Your task to perform on an android device: Show me some nice wallpapers for my phone Image 0: 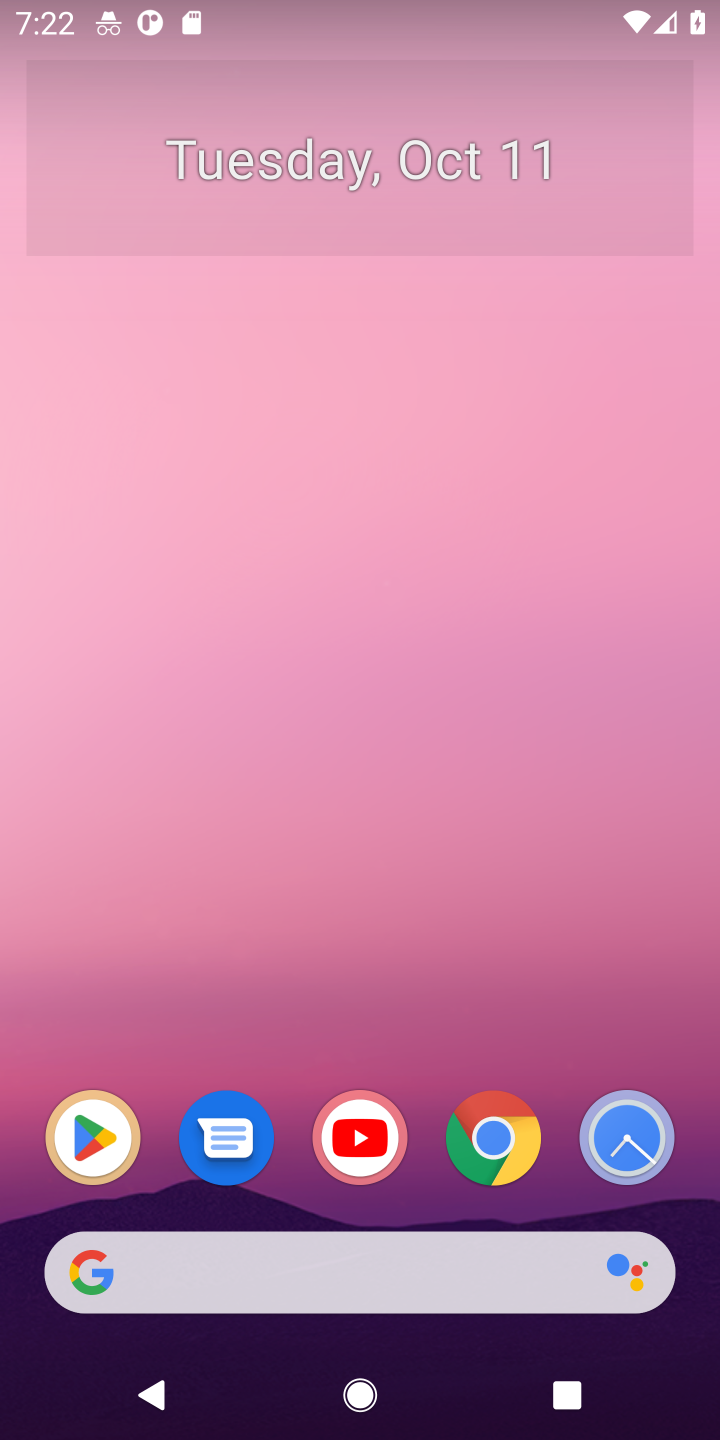
Step 0: drag from (337, 139) to (365, 348)
Your task to perform on an android device: Show me some nice wallpapers for my phone Image 1: 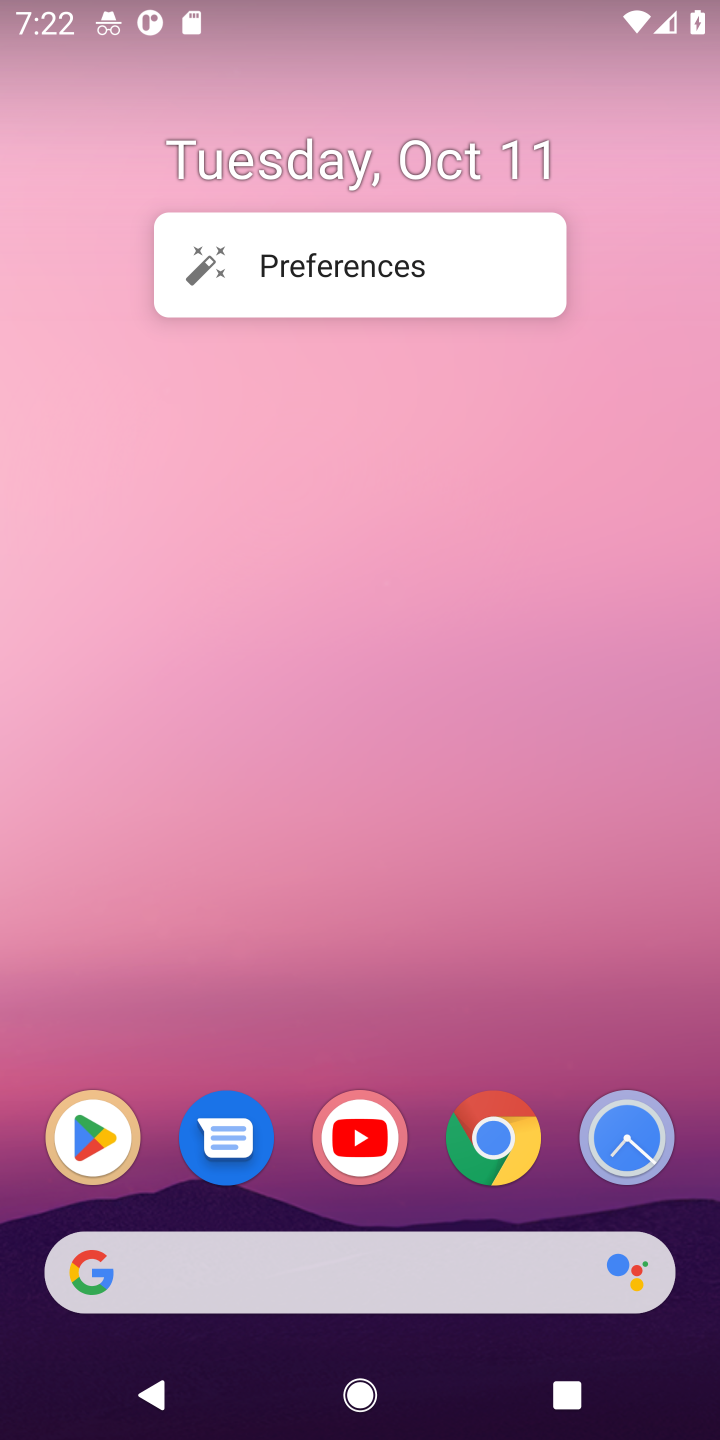
Step 1: drag from (286, 1175) to (304, 28)
Your task to perform on an android device: Show me some nice wallpapers for my phone Image 2: 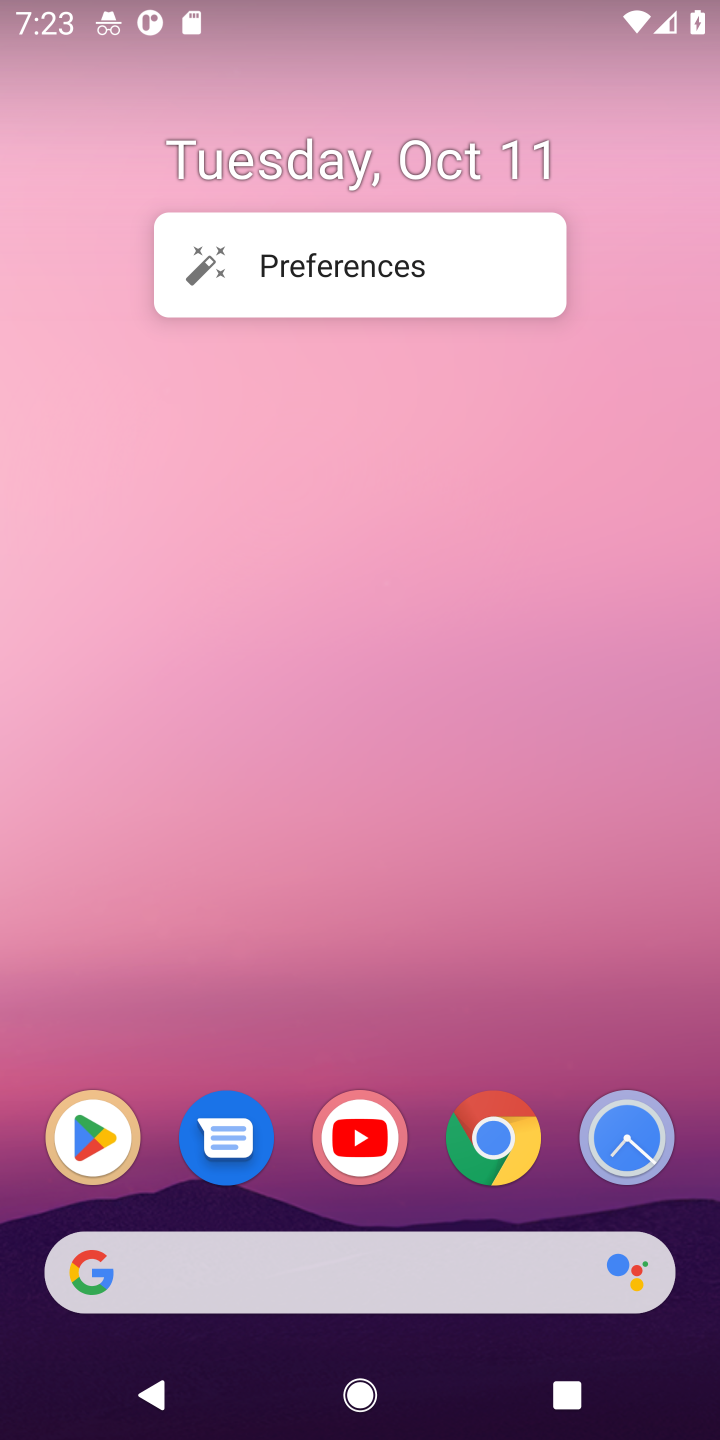
Step 2: drag from (309, 1112) to (309, 354)
Your task to perform on an android device: Show me some nice wallpapers for my phone Image 3: 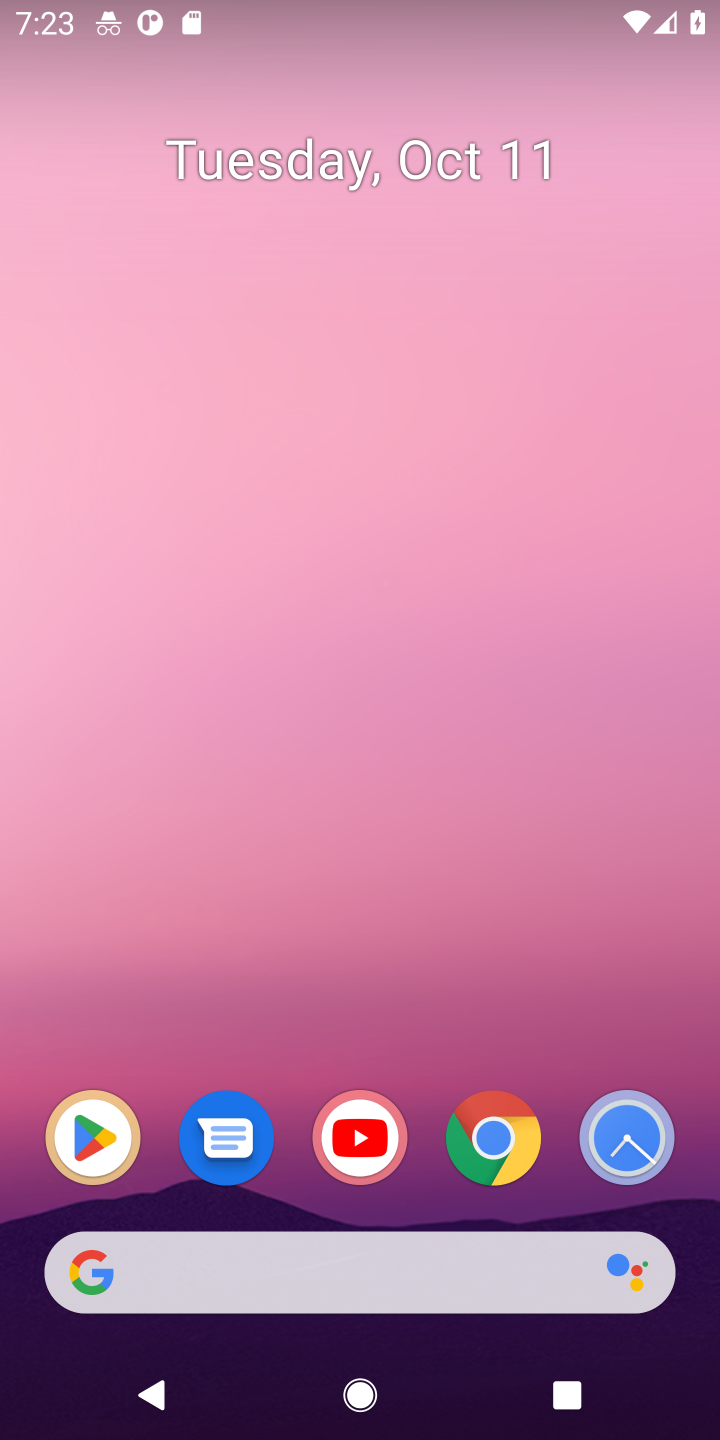
Step 3: drag from (408, 1189) to (409, 265)
Your task to perform on an android device: Show me some nice wallpapers for my phone Image 4: 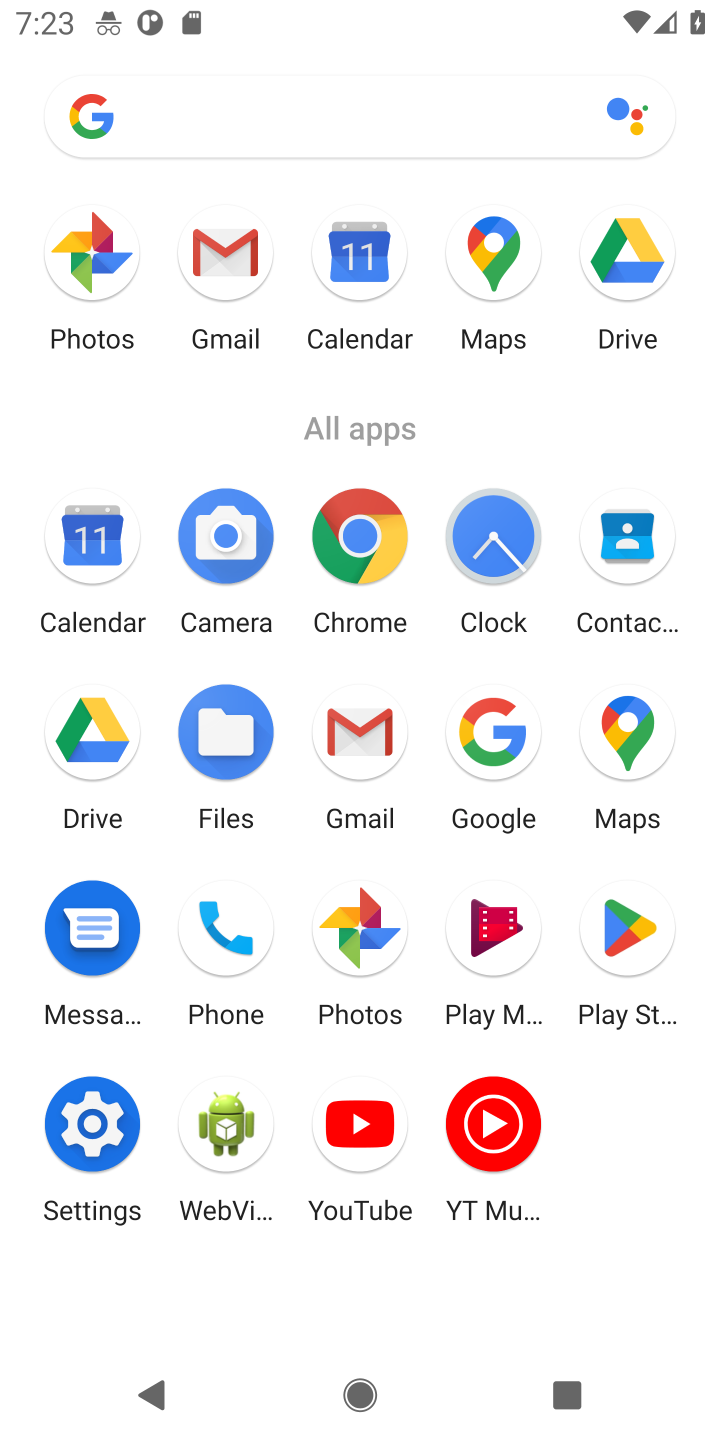
Step 4: drag from (534, 1141) to (392, 917)
Your task to perform on an android device: Show me some nice wallpapers for my phone Image 5: 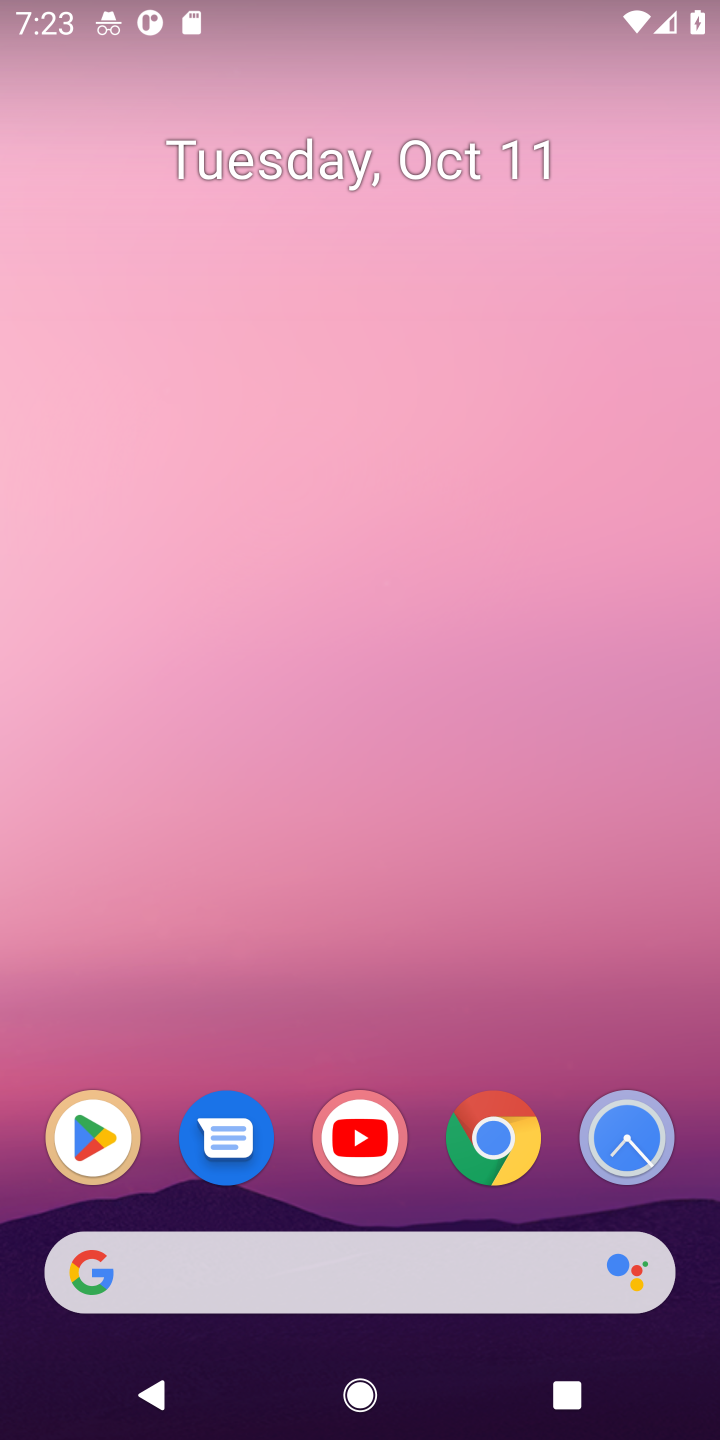
Step 5: click (472, 56)
Your task to perform on an android device: Show me some nice wallpapers for my phone Image 6: 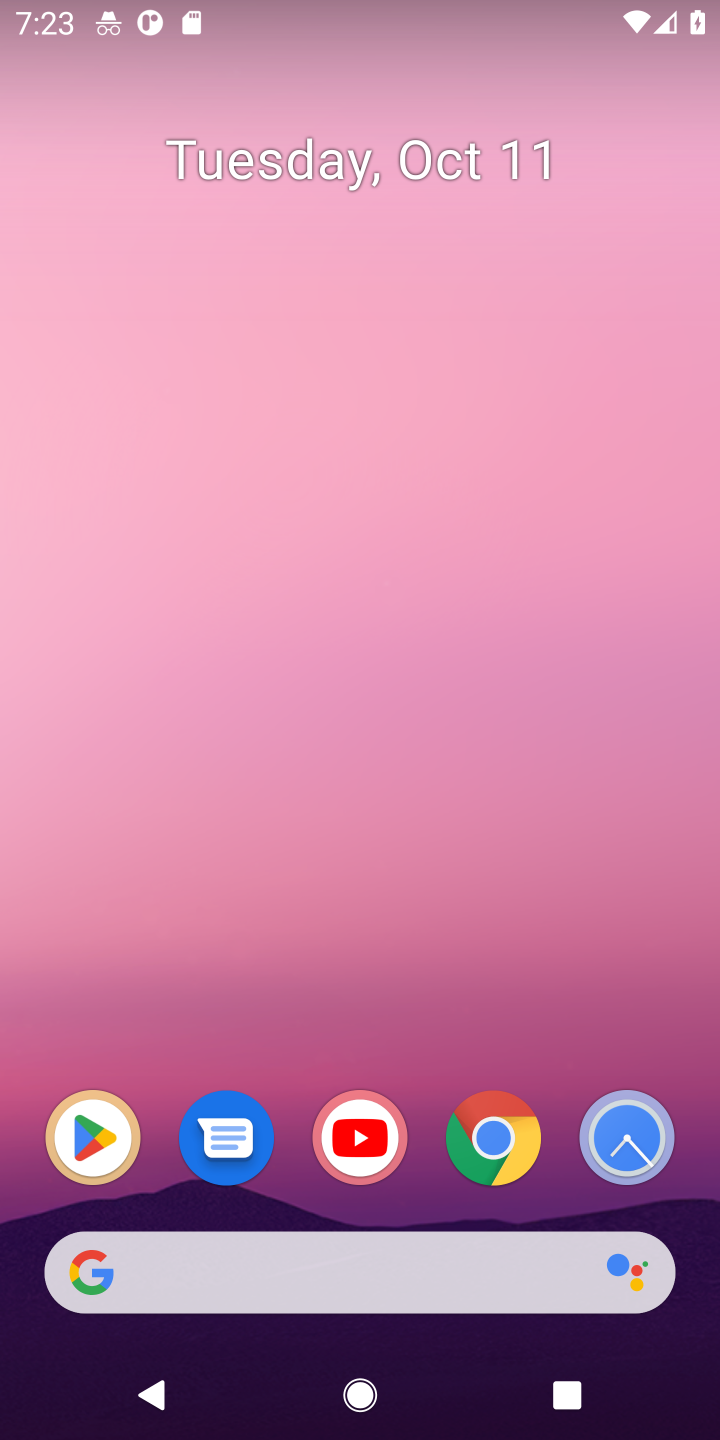
Step 6: drag from (439, 108) to (541, 9)
Your task to perform on an android device: Show me some nice wallpapers for my phone Image 7: 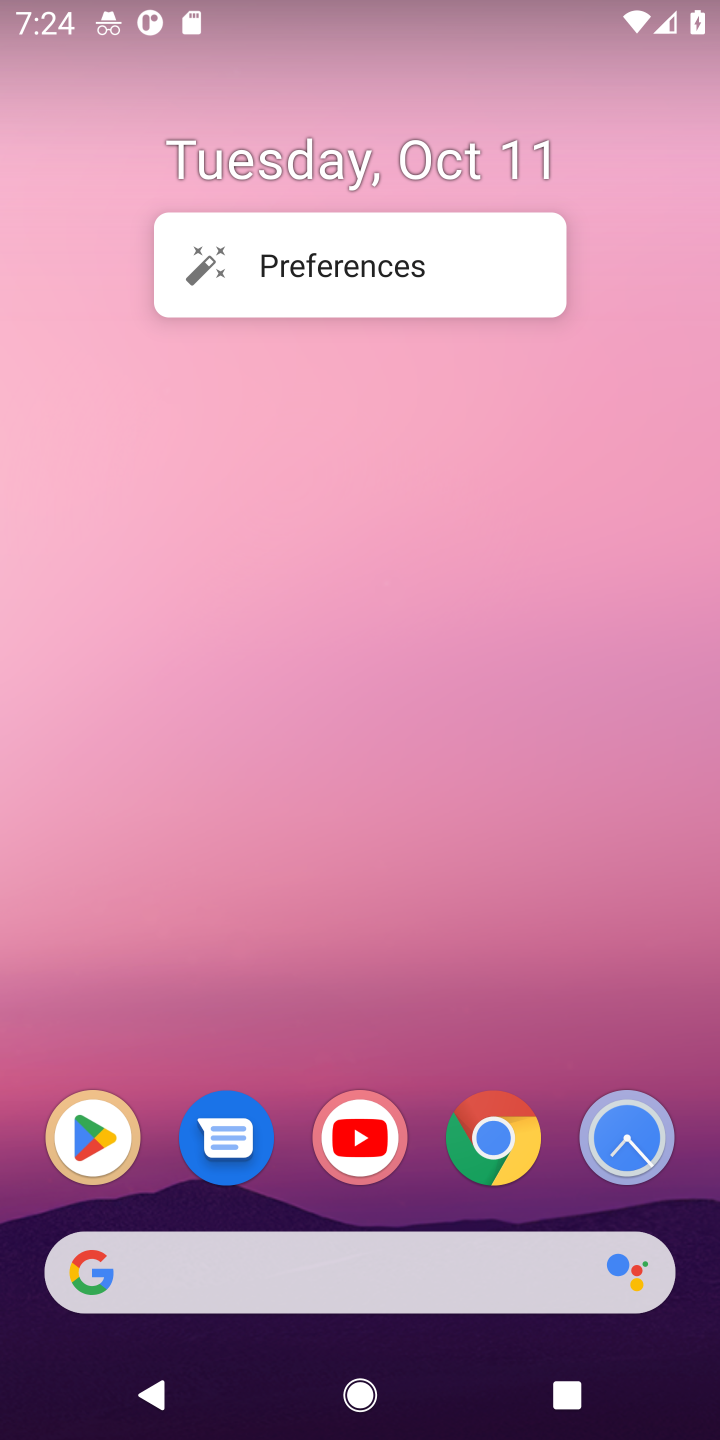
Step 7: drag from (413, 213) to (345, 146)
Your task to perform on an android device: Show me some nice wallpapers for my phone Image 8: 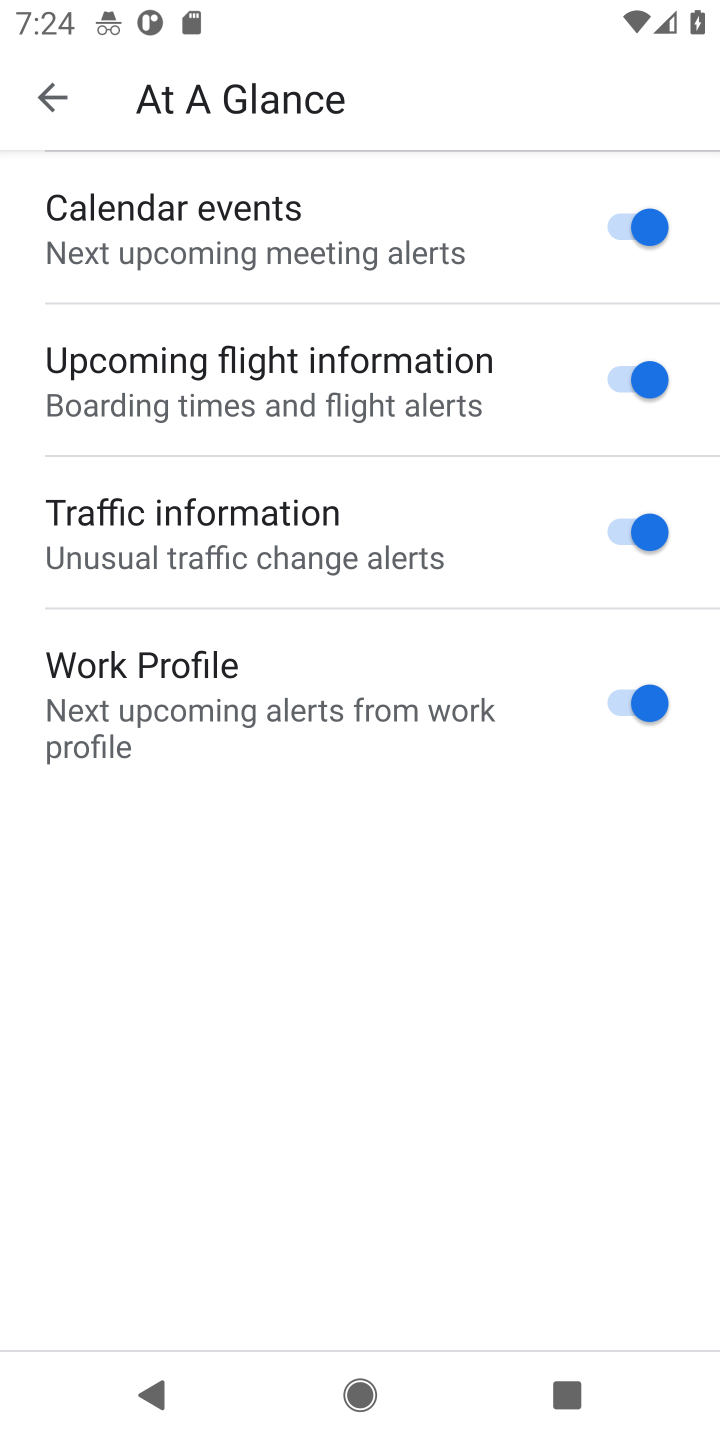
Step 8: press back button
Your task to perform on an android device: Show me some nice wallpapers for my phone Image 9: 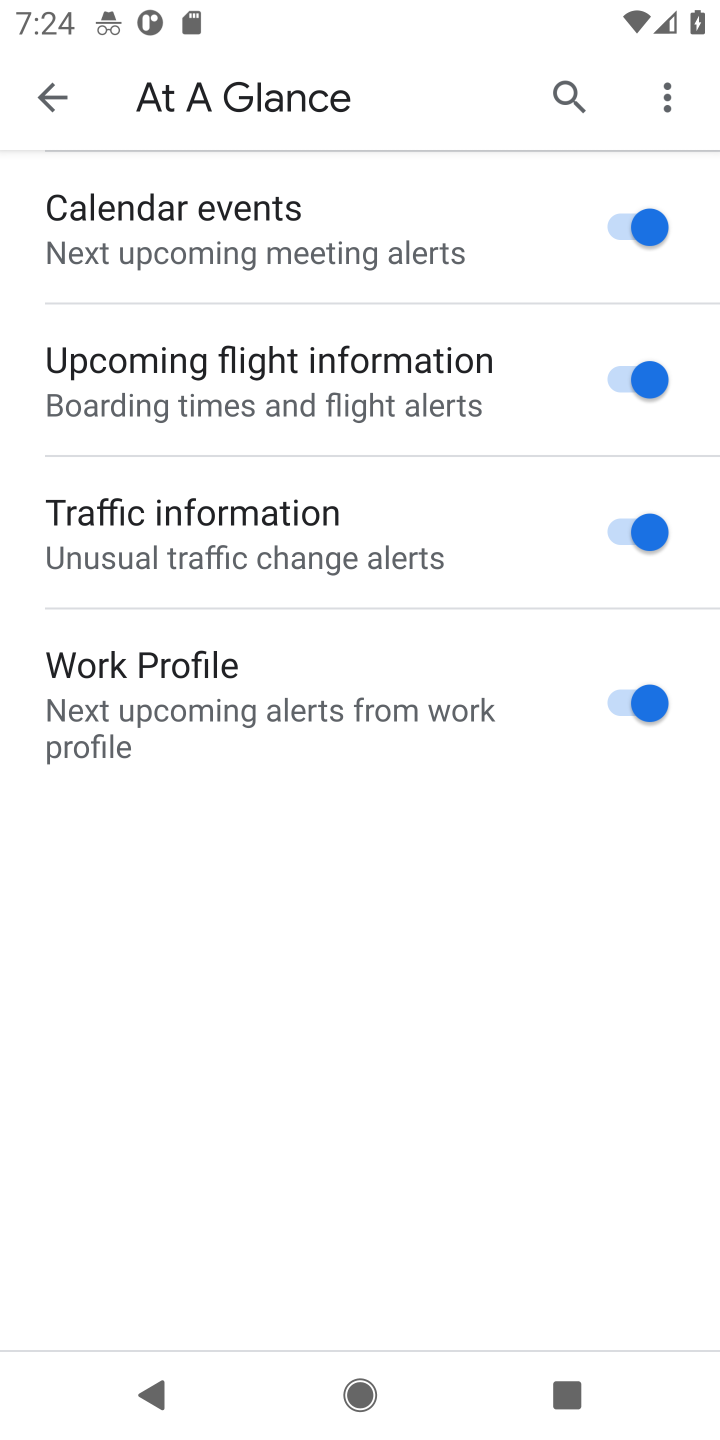
Step 9: press home button
Your task to perform on an android device: Show me some nice wallpapers for my phone Image 10: 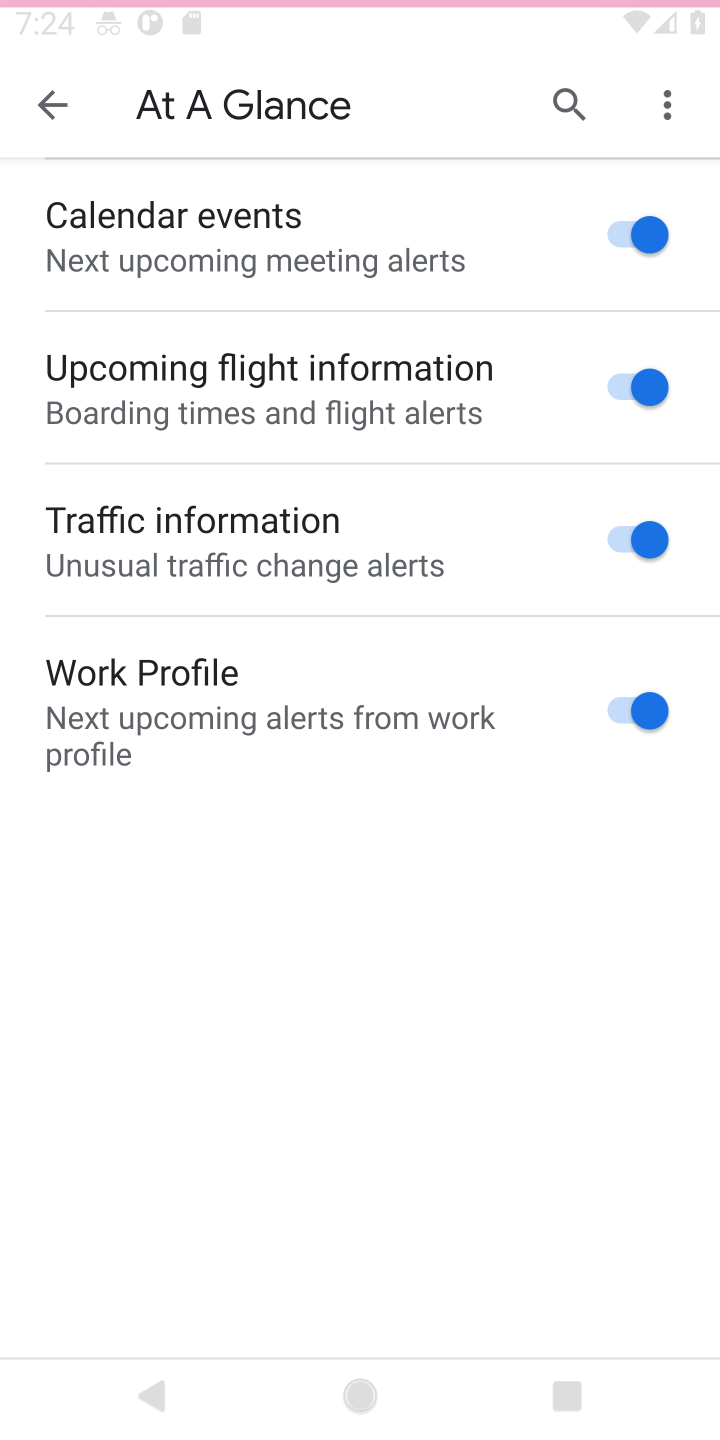
Step 10: press home button
Your task to perform on an android device: Show me some nice wallpapers for my phone Image 11: 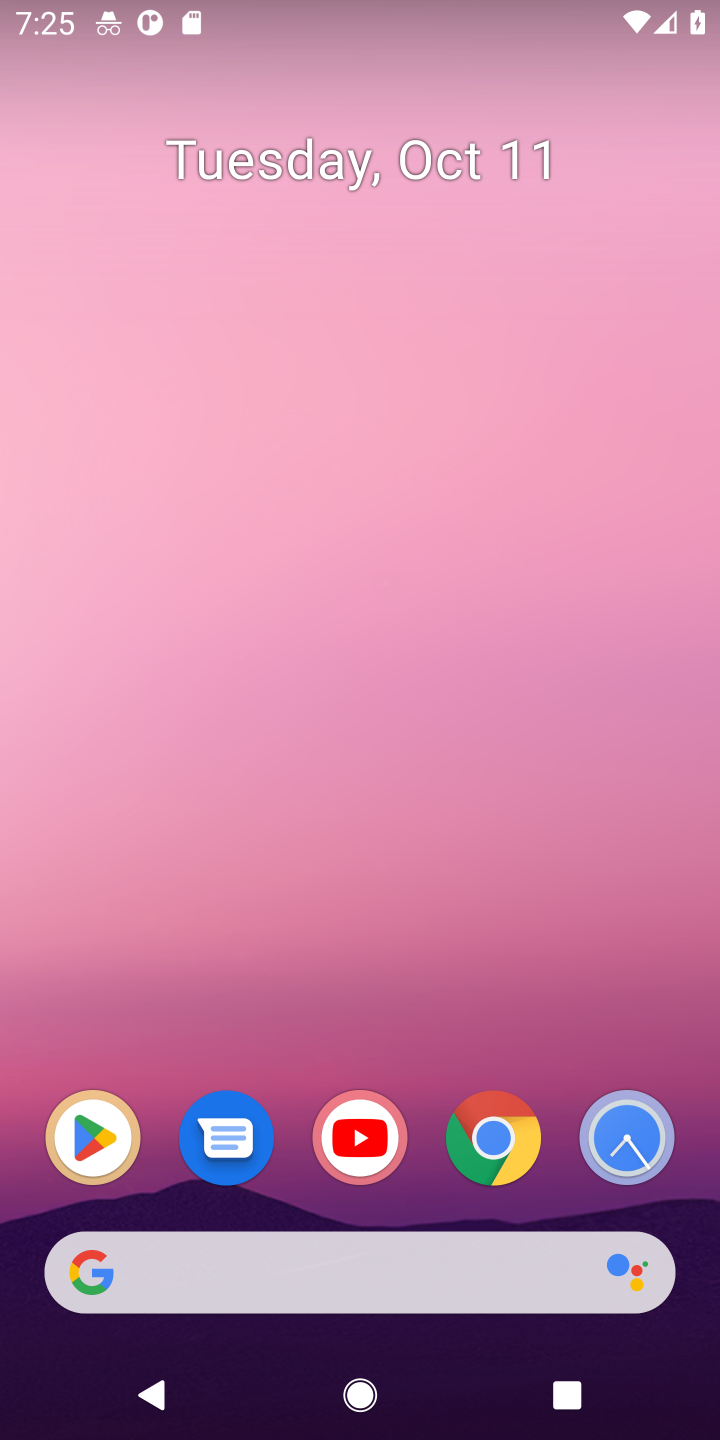
Step 11: click (399, 1236)
Your task to perform on an android device: Show me some nice wallpapers for my phone Image 12: 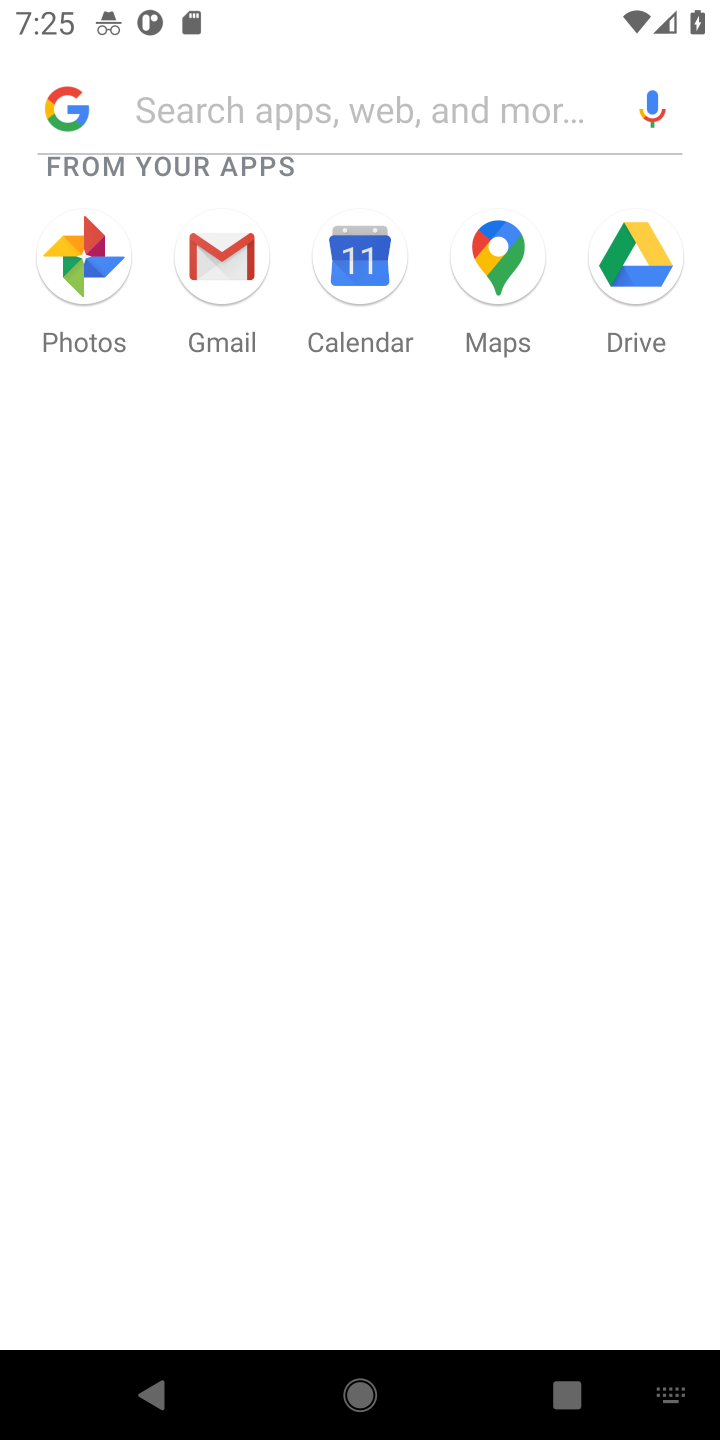
Step 12: click (78, 262)
Your task to perform on an android device: Show me some nice wallpapers for my phone Image 13: 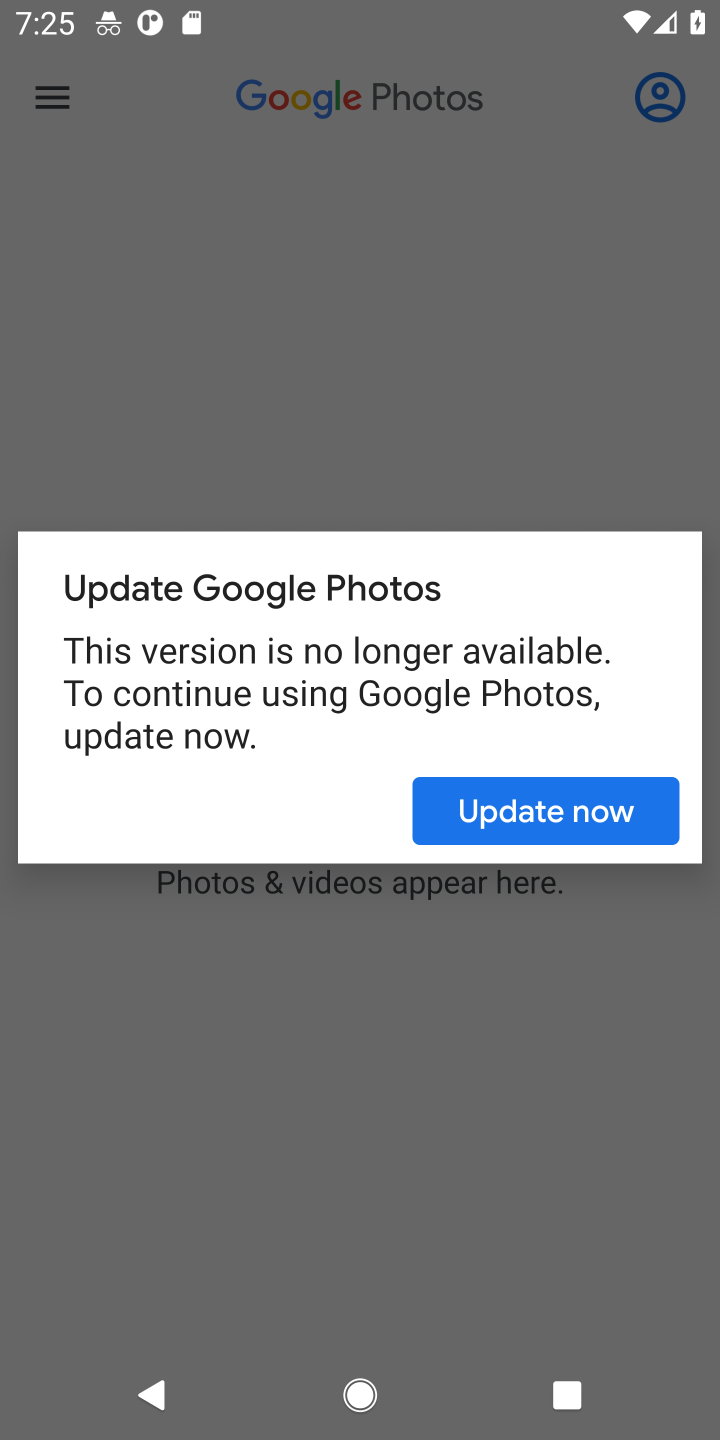
Step 13: task complete